Your task to perform on an android device: turn pop-ups off in chrome Image 0: 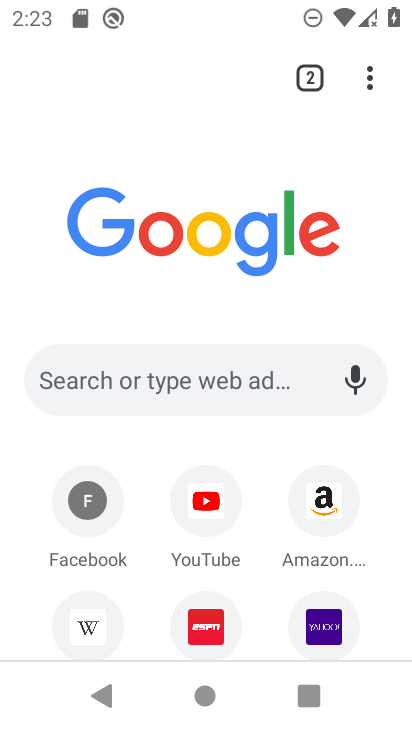
Step 0: click (372, 70)
Your task to perform on an android device: turn pop-ups off in chrome Image 1: 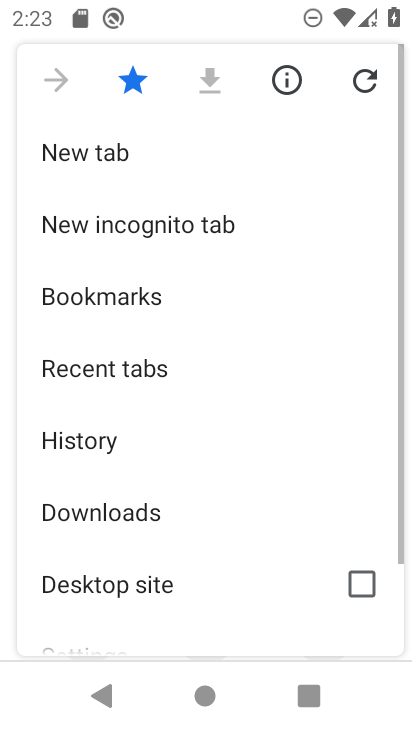
Step 1: click (368, 79)
Your task to perform on an android device: turn pop-ups off in chrome Image 2: 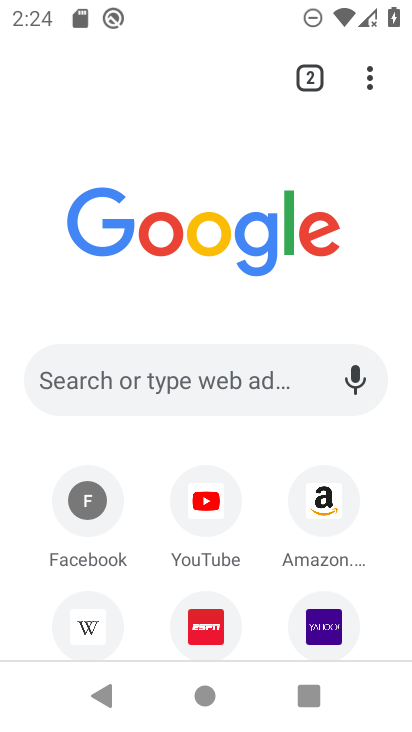
Step 2: click (368, 82)
Your task to perform on an android device: turn pop-ups off in chrome Image 3: 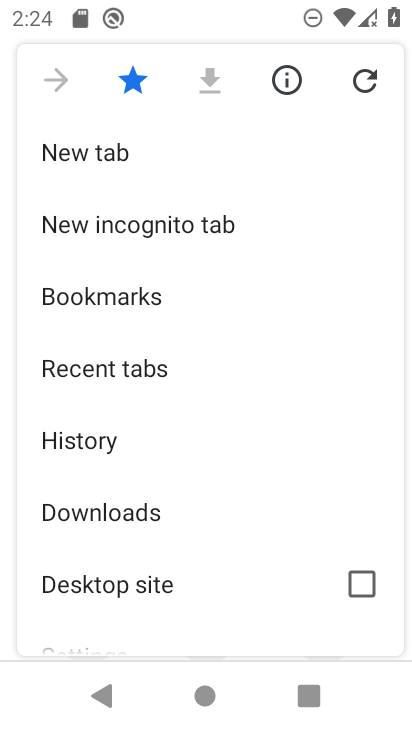
Step 3: drag from (216, 584) to (231, 349)
Your task to perform on an android device: turn pop-ups off in chrome Image 4: 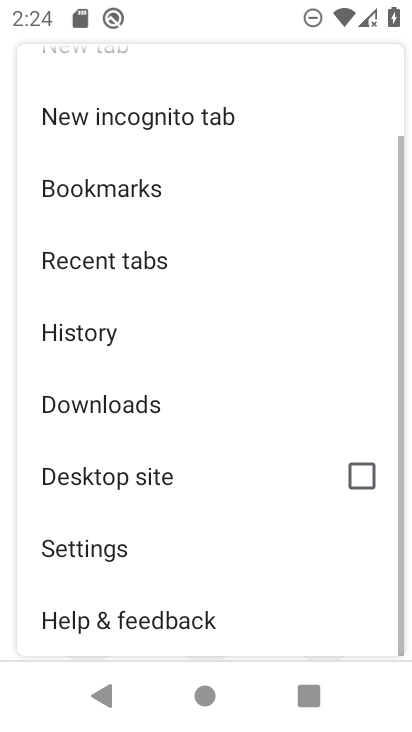
Step 4: click (93, 556)
Your task to perform on an android device: turn pop-ups off in chrome Image 5: 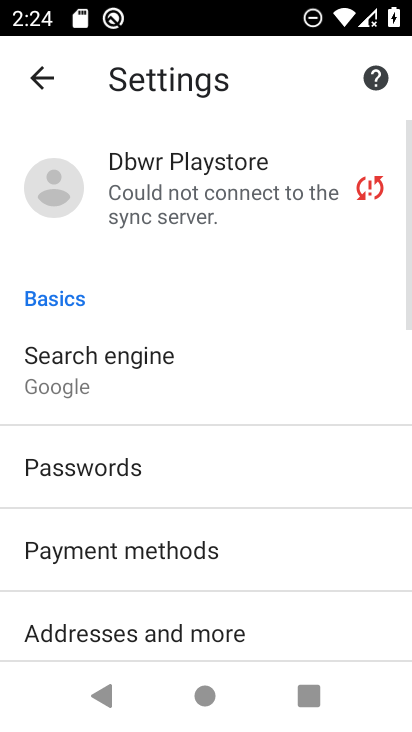
Step 5: drag from (293, 568) to (298, 367)
Your task to perform on an android device: turn pop-ups off in chrome Image 6: 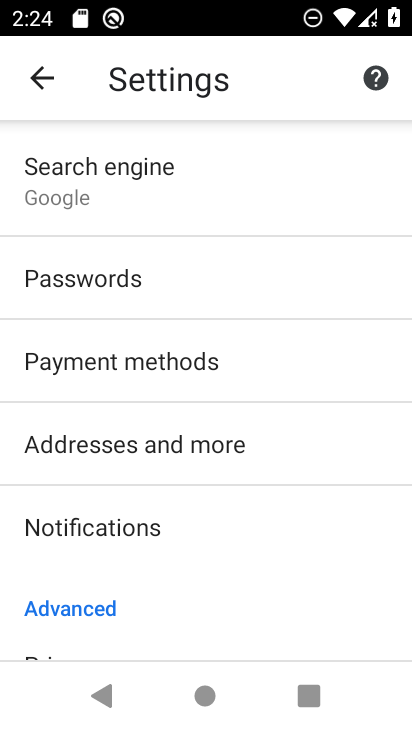
Step 6: drag from (245, 588) to (277, 339)
Your task to perform on an android device: turn pop-ups off in chrome Image 7: 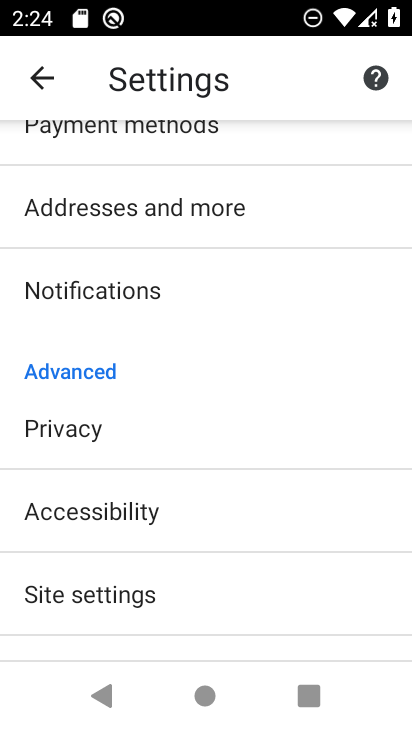
Step 7: click (63, 592)
Your task to perform on an android device: turn pop-ups off in chrome Image 8: 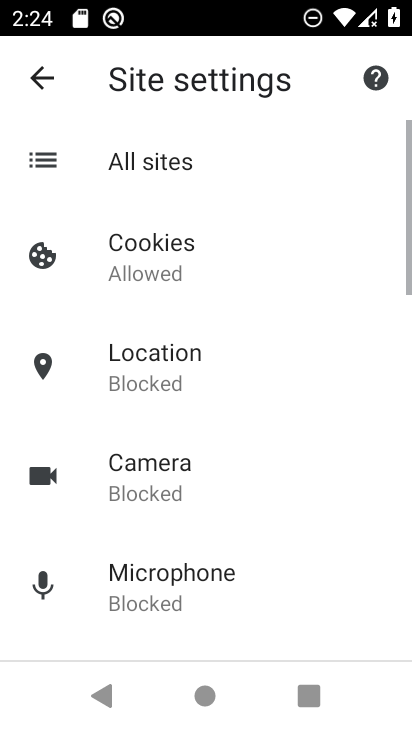
Step 8: drag from (303, 488) to (330, 358)
Your task to perform on an android device: turn pop-ups off in chrome Image 9: 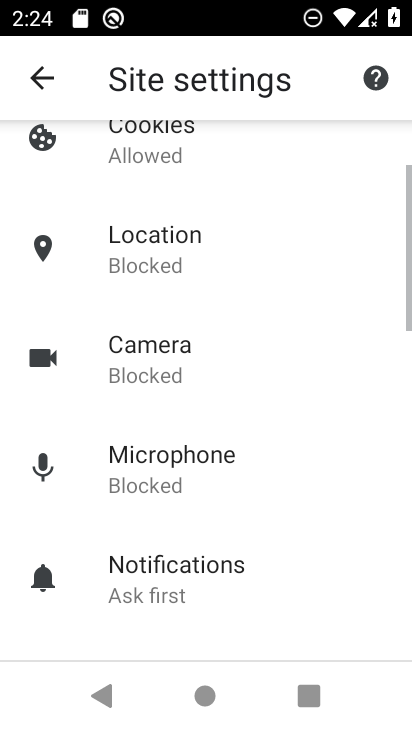
Step 9: click (306, 341)
Your task to perform on an android device: turn pop-ups off in chrome Image 10: 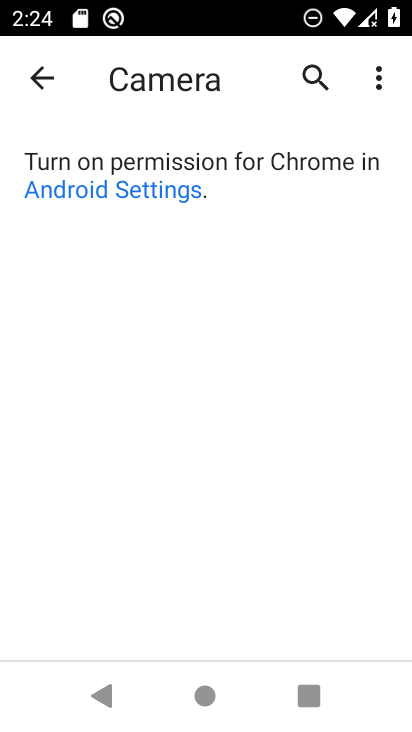
Step 10: click (32, 78)
Your task to perform on an android device: turn pop-ups off in chrome Image 11: 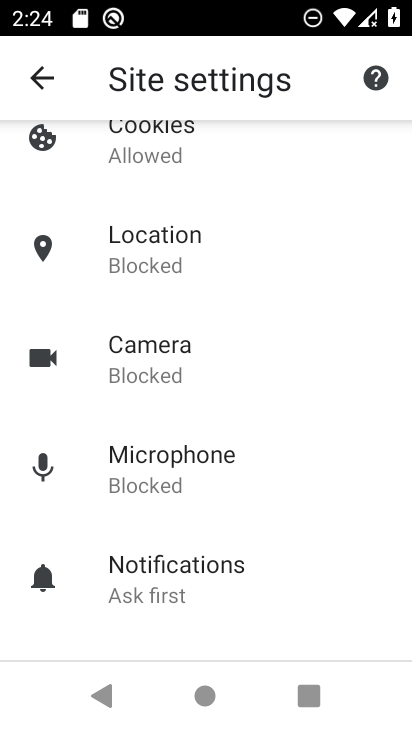
Step 11: click (266, 294)
Your task to perform on an android device: turn pop-ups off in chrome Image 12: 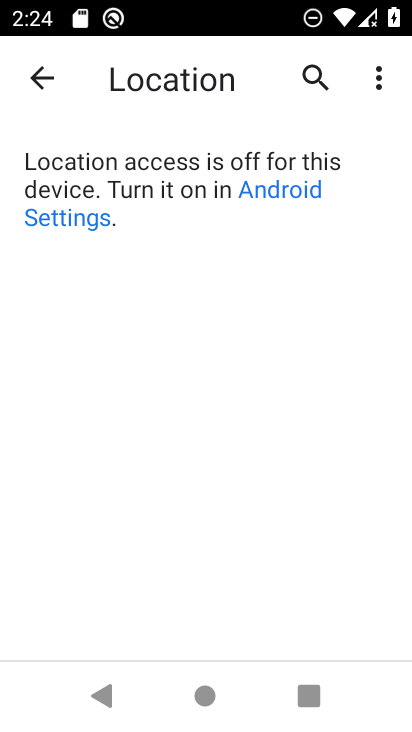
Step 12: drag from (292, 602) to (292, 341)
Your task to perform on an android device: turn pop-ups off in chrome Image 13: 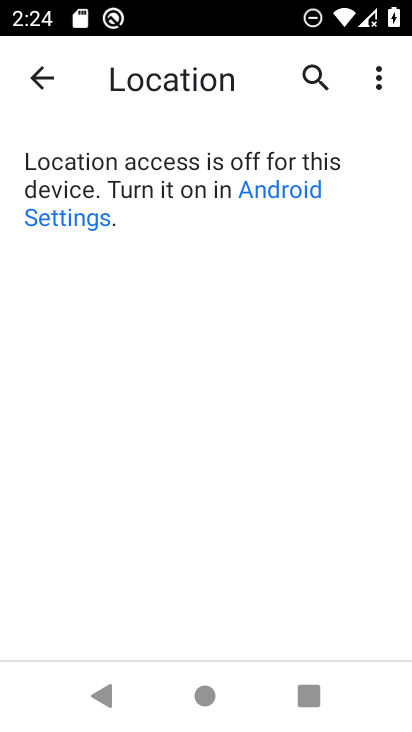
Step 13: click (43, 76)
Your task to perform on an android device: turn pop-ups off in chrome Image 14: 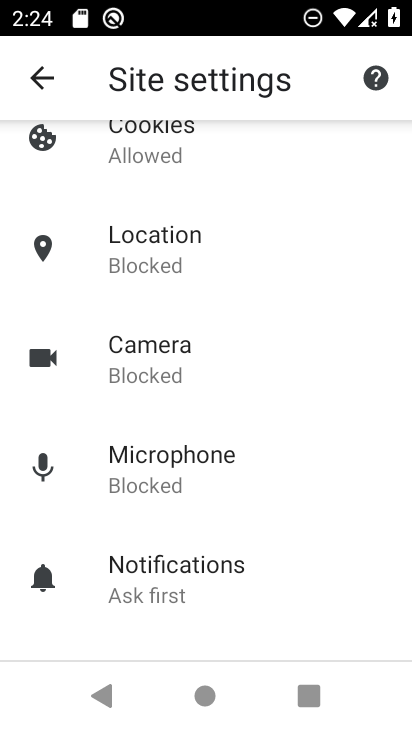
Step 14: drag from (347, 596) to (353, 239)
Your task to perform on an android device: turn pop-ups off in chrome Image 15: 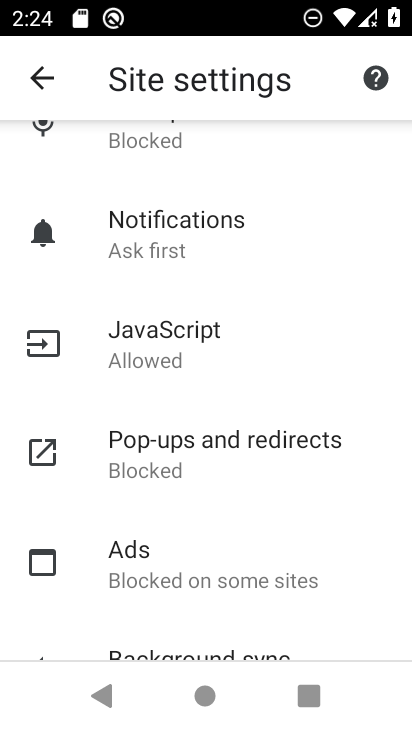
Step 15: click (166, 442)
Your task to perform on an android device: turn pop-ups off in chrome Image 16: 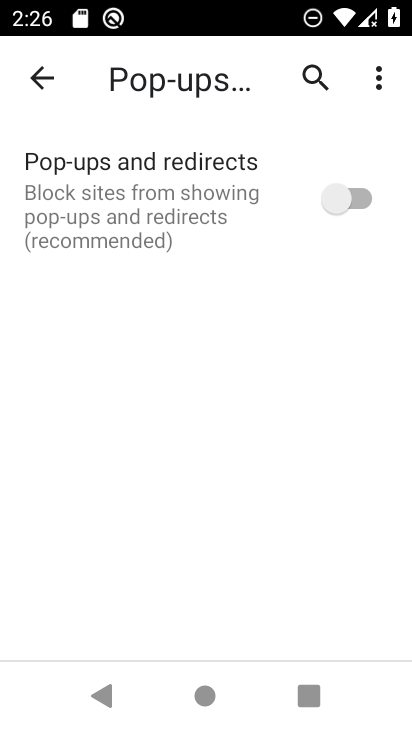
Step 16: task complete